Your task to perform on an android device: toggle show notifications on the lock screen Image 0: 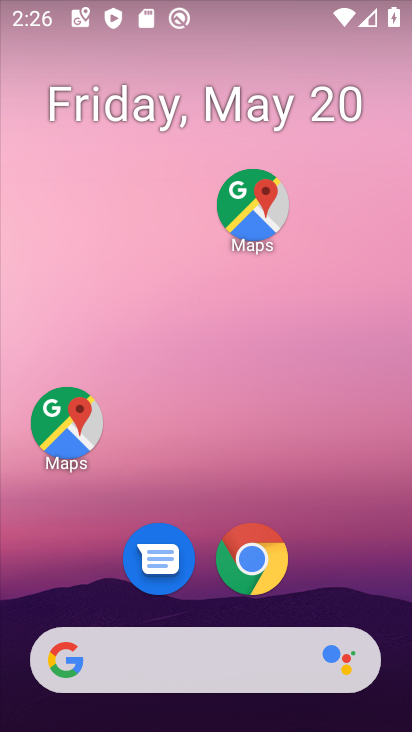
Step 0: drag from (351, 585) to (376, 18)
Your task to perform on an android device: toggle show notifications on the lock screen Image 1: 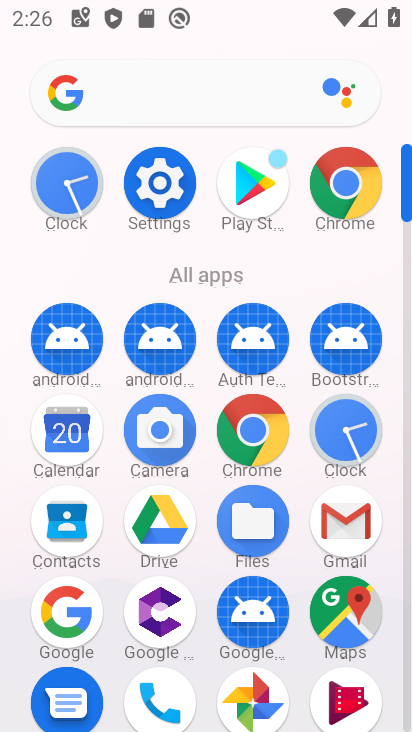
Step 1: click (159, 182)
Your task to perform on an android device: toggle show notifications on the lock screen Image 2: 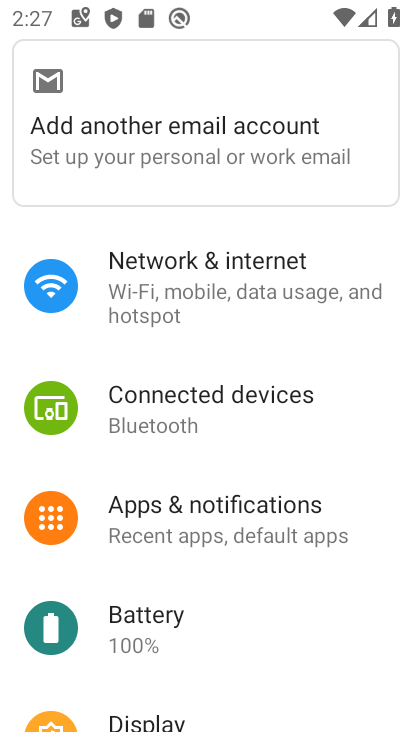
Step 2: click (198, 516)
Your task to perform on an android device: toggle show notifications on the lock screen Image 3: 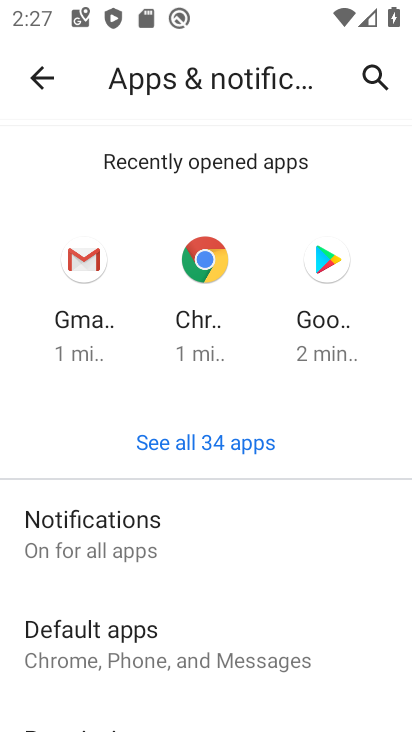
Step 3: click (122, 543)
Your task to perform on an android device: toggle show notifications on the lock screen Image 4: 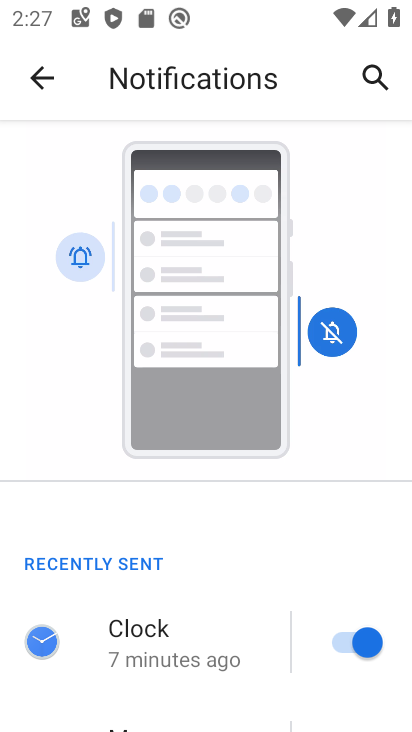
Step 4: drag from (225, 561) to (269, 113)
Your task to perform on an android device: toggle show notifications on the lock screen Image 5: 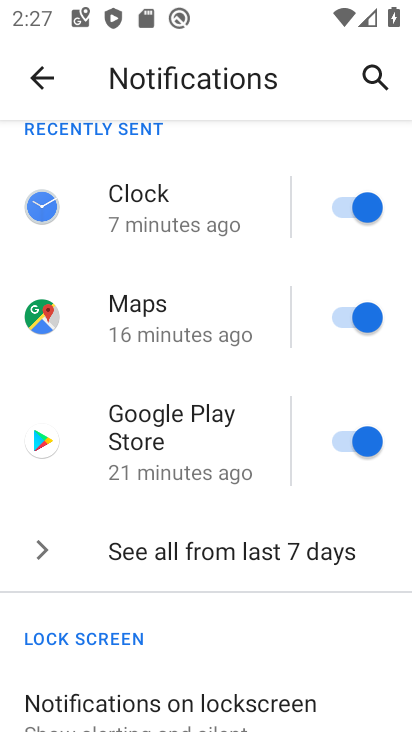
Step 5: click (187, 702)
Your task to perform on an android device: toggle show notifications on the lock screen Image 6: 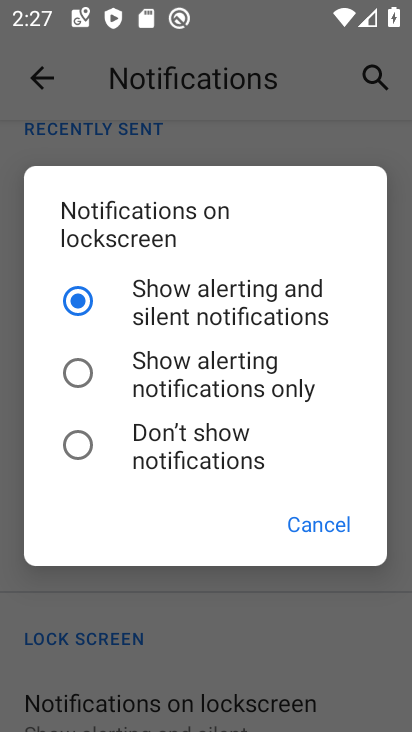
Step 6: click (76, 449)
Your task to perform on an android device: toggle show notifications on the lock screen Image 7: 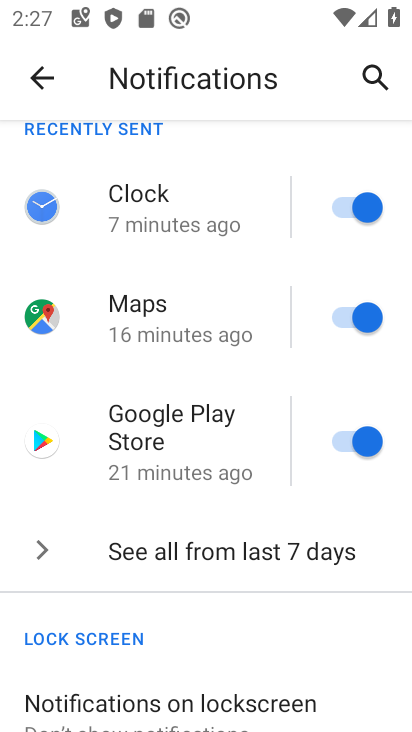
Step 7: task complete